Your task to perform on an android device: Show me productivity apps on the Play Store Image 0: 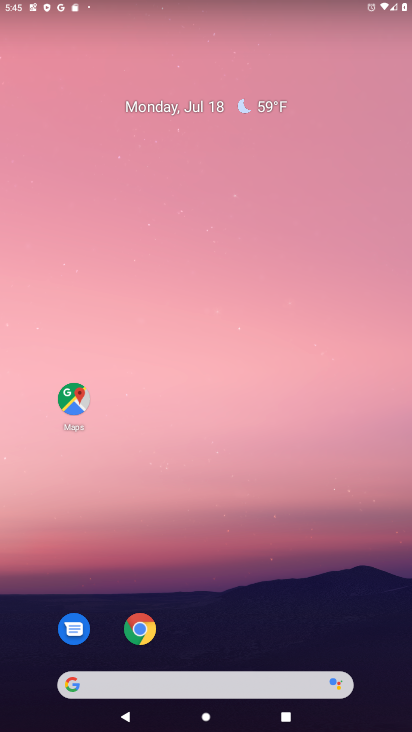
Step 0: drag from (222, 436) to (277, 131)
Your task to perform on an android device: Show me productivity apps on the Play Store Image 1: 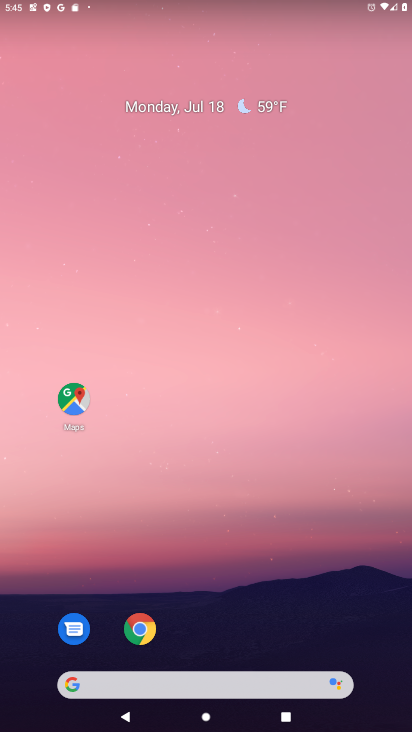
Step 1: drag from (255, 555) to (241, 49)
Your task to perform on an android device: Show me productivity apps on the Play Store Image 2: 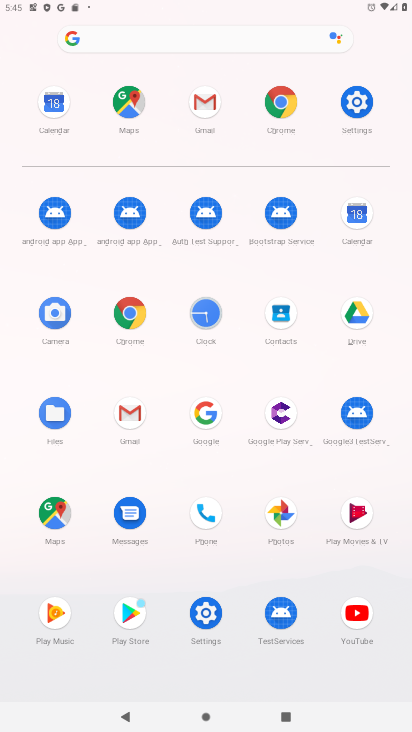
Step 2: click (130, 610)
Your task to perform on an android device: Show me productivity apps on the Play Store Image 3: 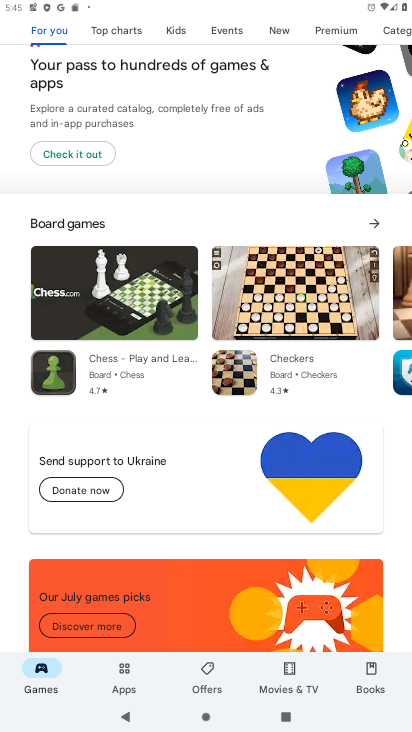
Step 3: click (125, 688)
Your task to perform on an android device: Show me productivity apps on the Play Store Image 4: 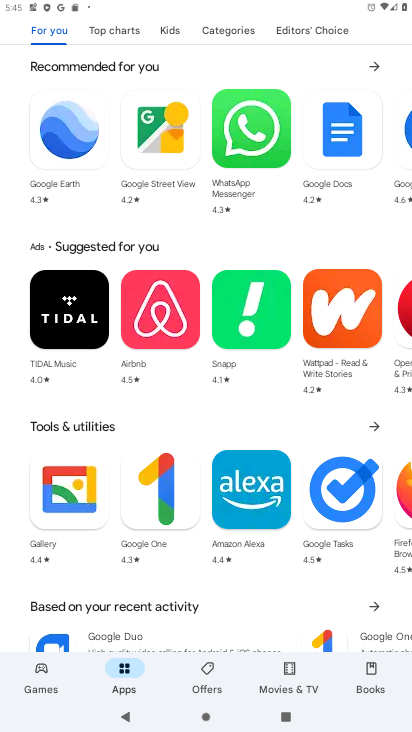
Step 4: task complete